Your task to perform on an android device: Go to display settings Image 0: 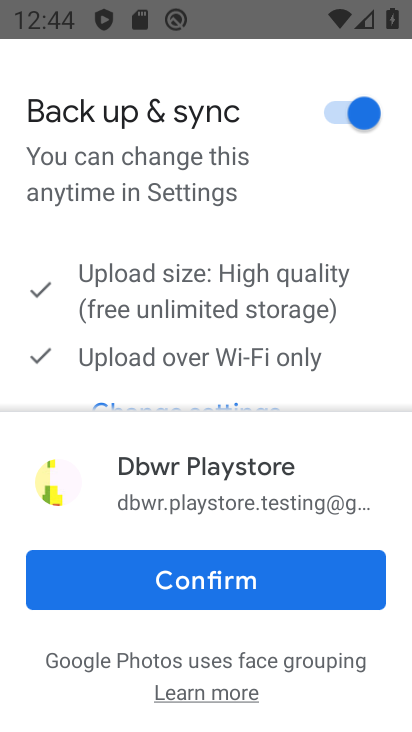
Step 0: press home button
Your task to perform on an android device: Go to display settings Image 1: 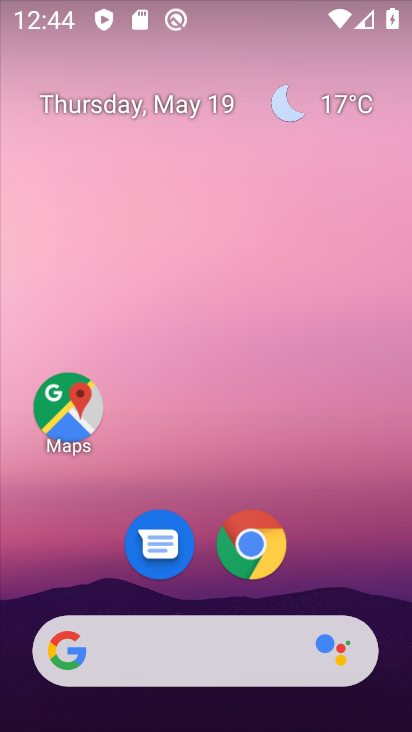
Step 1: drag from (227, 718) to (227, 93)
Your task to perform on an android device: Go to display settings Image 2: 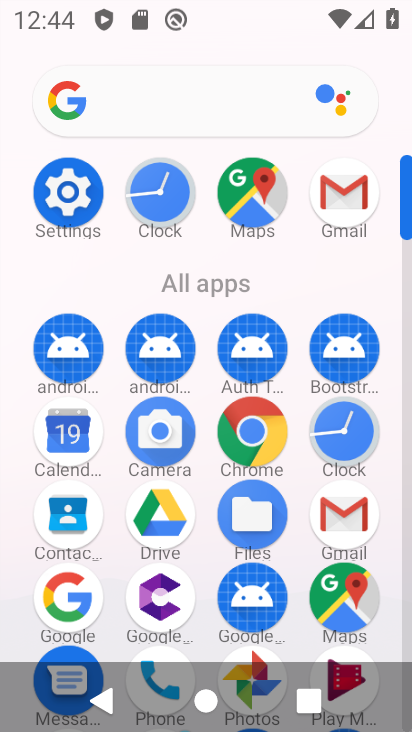
Step 2: click (57, 187)
Your task to perform on an android device: Go to display settings Image 3: 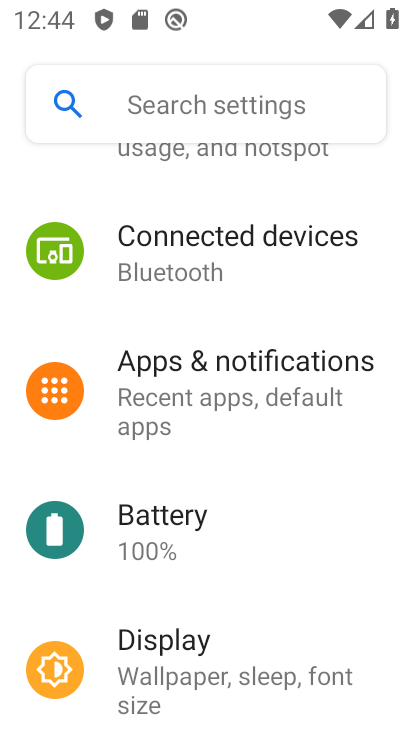
Step 3: click (167, 649)
Your task to perform on an android device: Go to display settings Image 4: 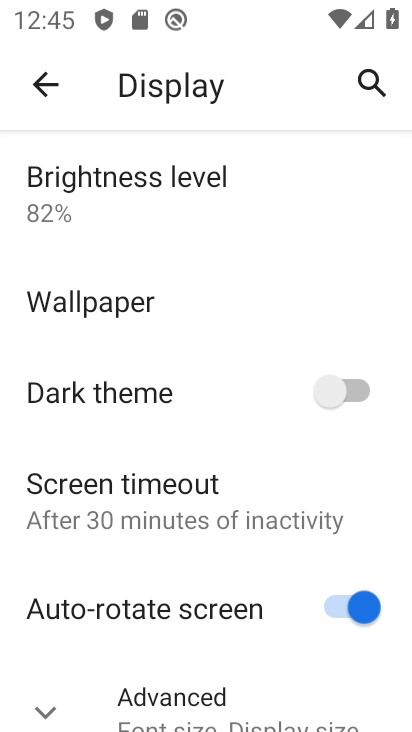
Step 4: task complete